Your task to perform on an android device: Search for jbl charge 4 on bestbuy, select the first entry, and add it to the cart. Image 0: 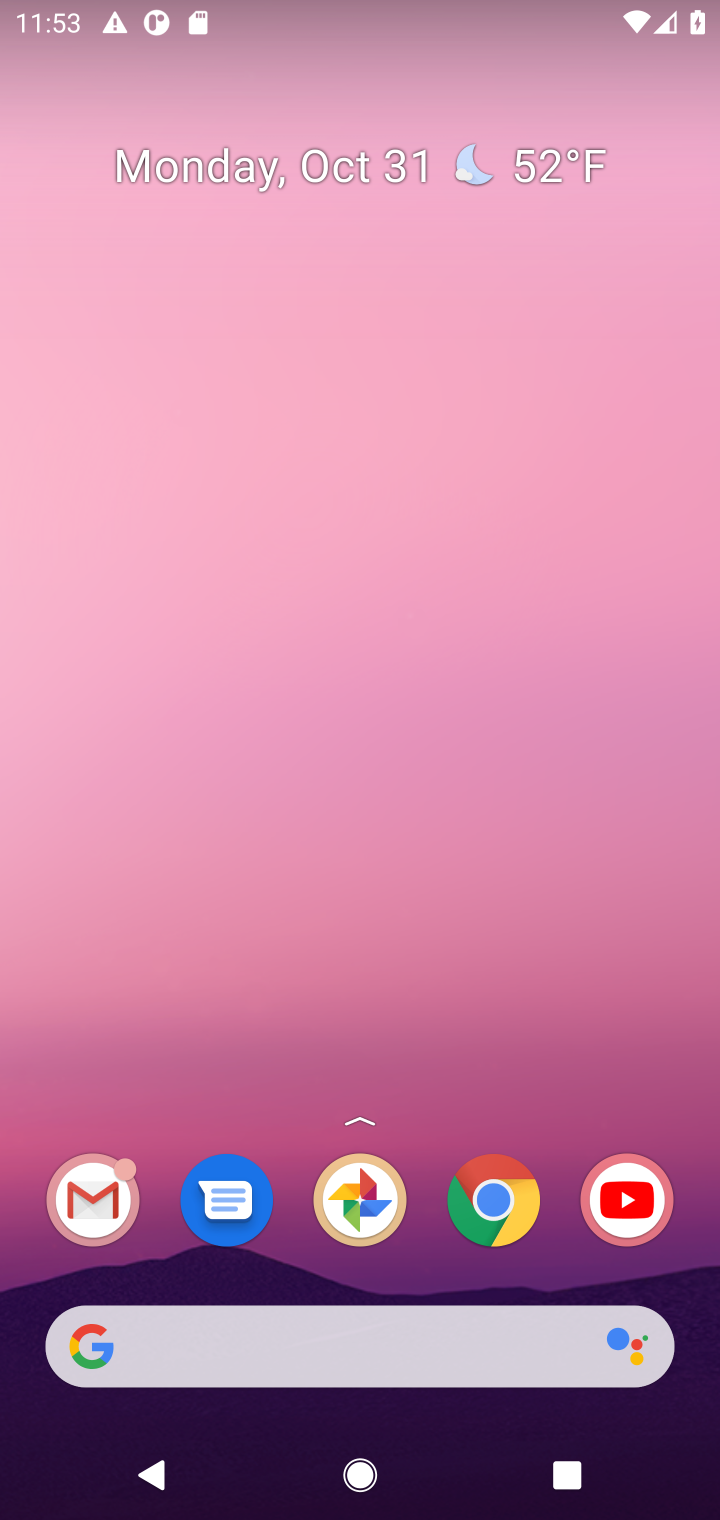
Step 0: click (506, 1199)
Your task to perform on an android device: Search for jbl charge 4 on bestbuy, select the first entry, and add it to the cart. Image 1: 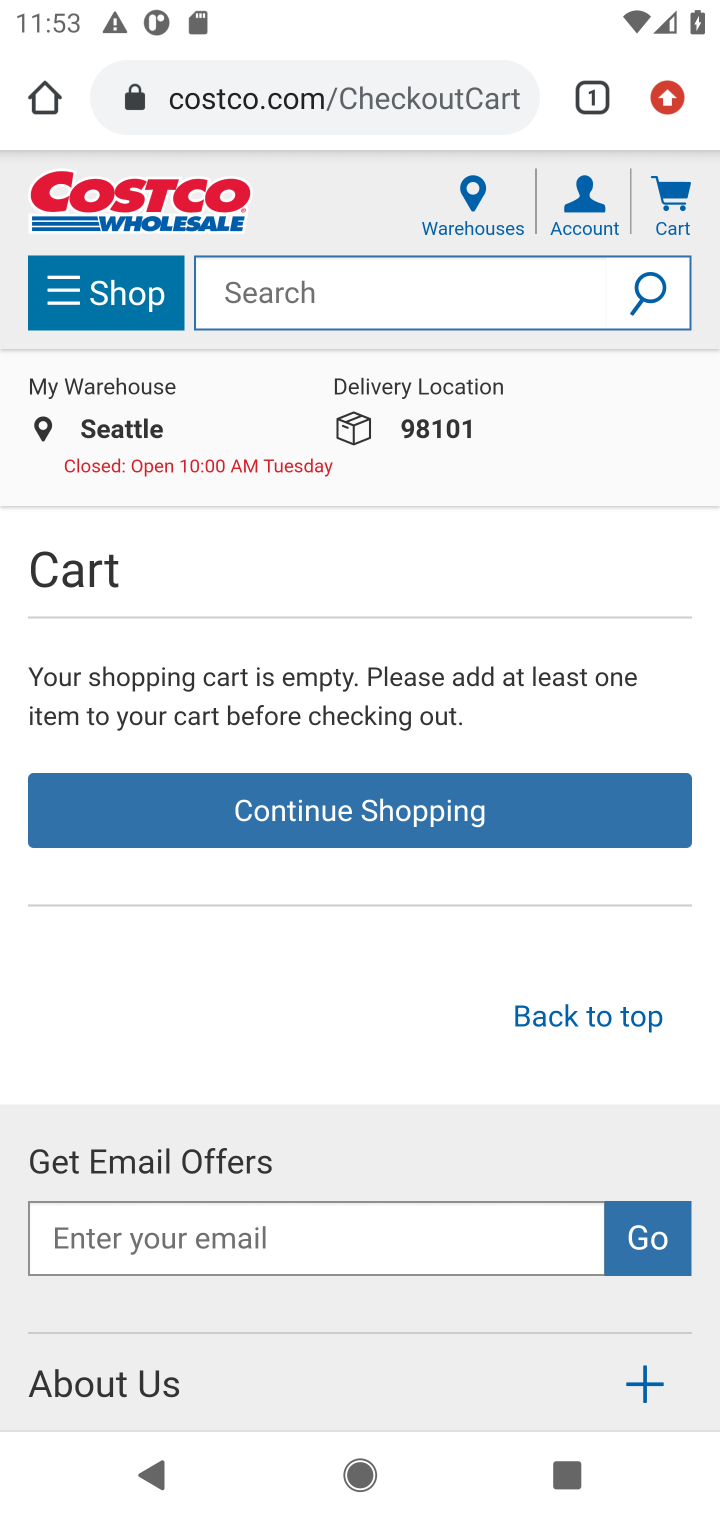
Step 1: click (375, 85)
Your task to perform on an android device: Search for jbl charge 4 on bestbuy, select the first entry, and add it to the cart. Image 2: 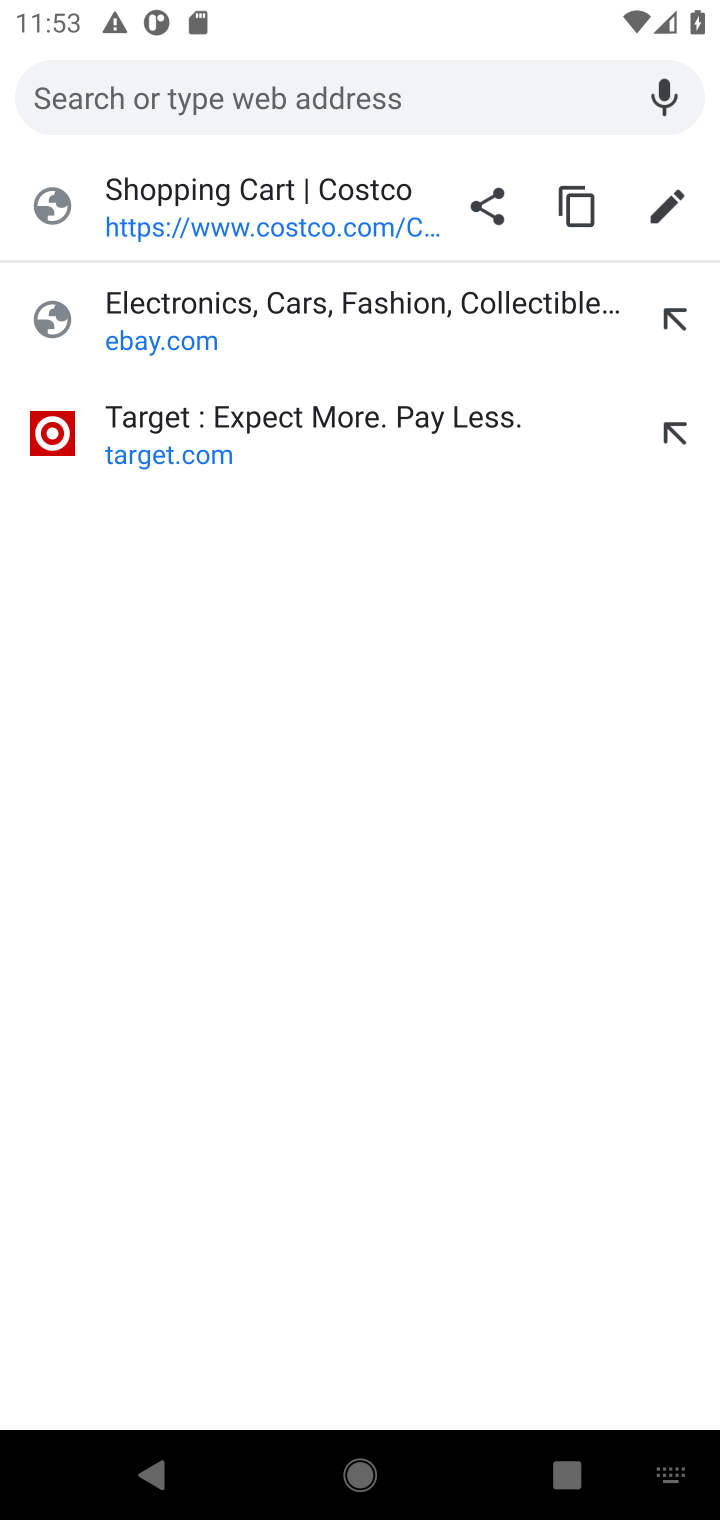
Step 2: type "bestbuy.com"
Your task to perform on an android device: Search for jbl charge 4 on bestbuy, select the first entry, and add it to the cart. Image 3: 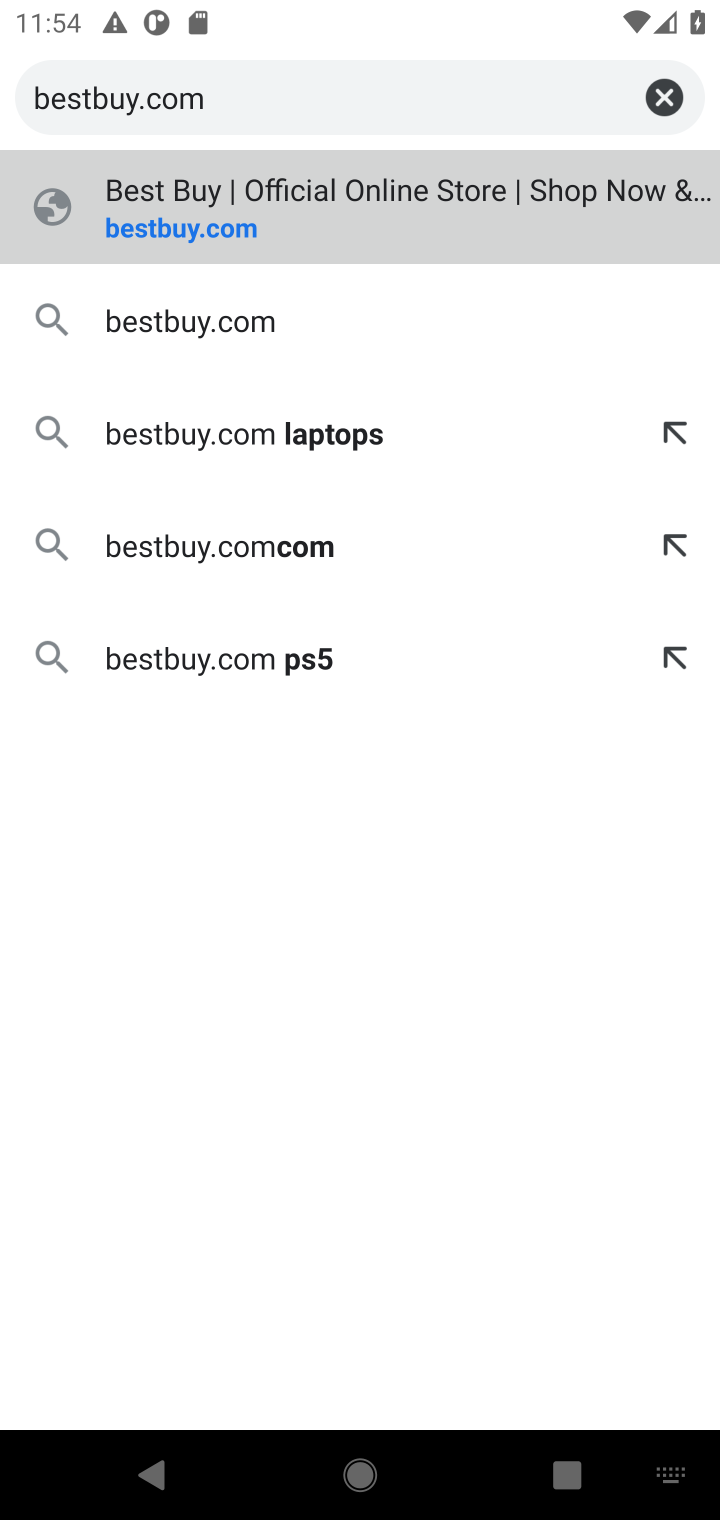
Step 3: click (202, 231)
Your task to perform on an android device: Search for jbl charge 4 on bestbuy, select the first entry, and add it to the cart. Image 4: 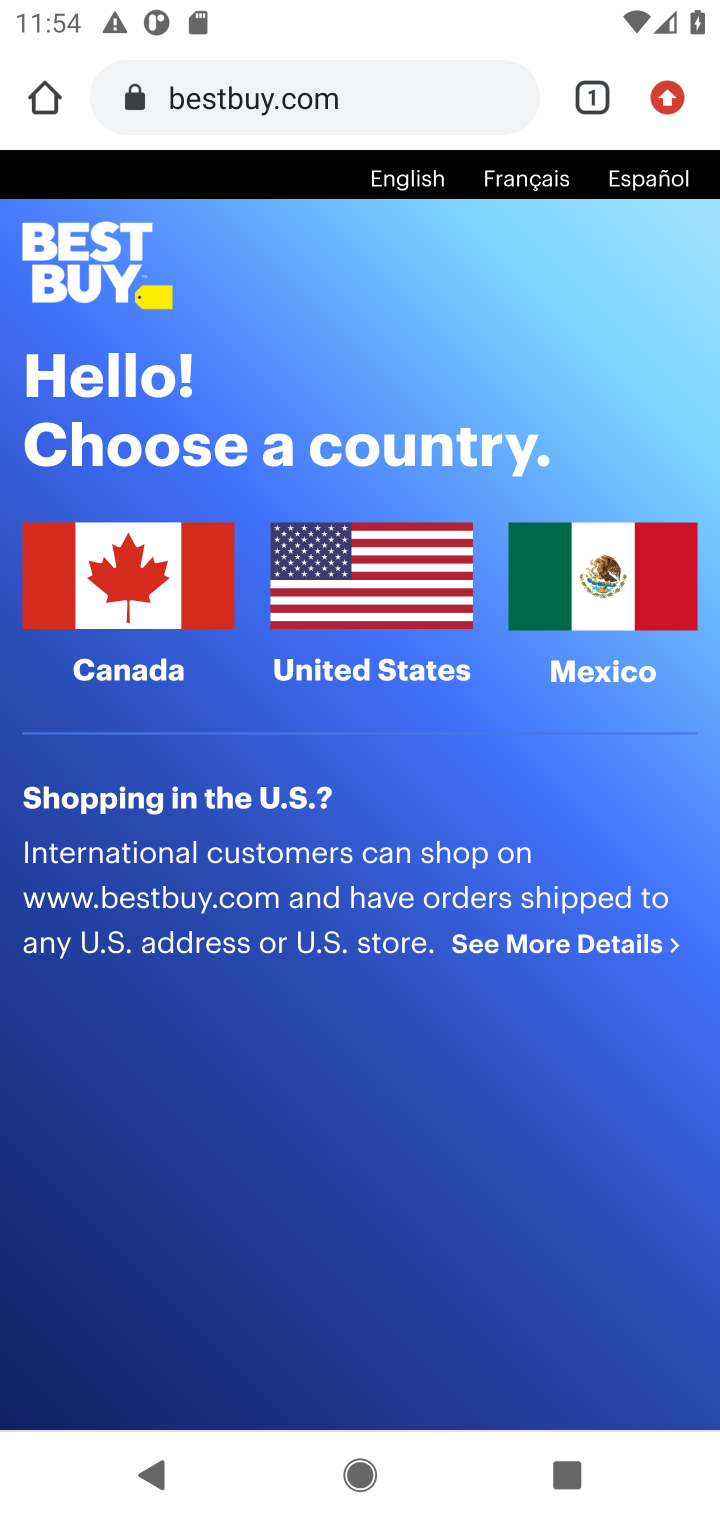
Step 4: click (374, 612)
Your task to perform on an android device: Search for jbl charge 4 on bestbuy, select the first entry, and add it to the cart. Image 5: 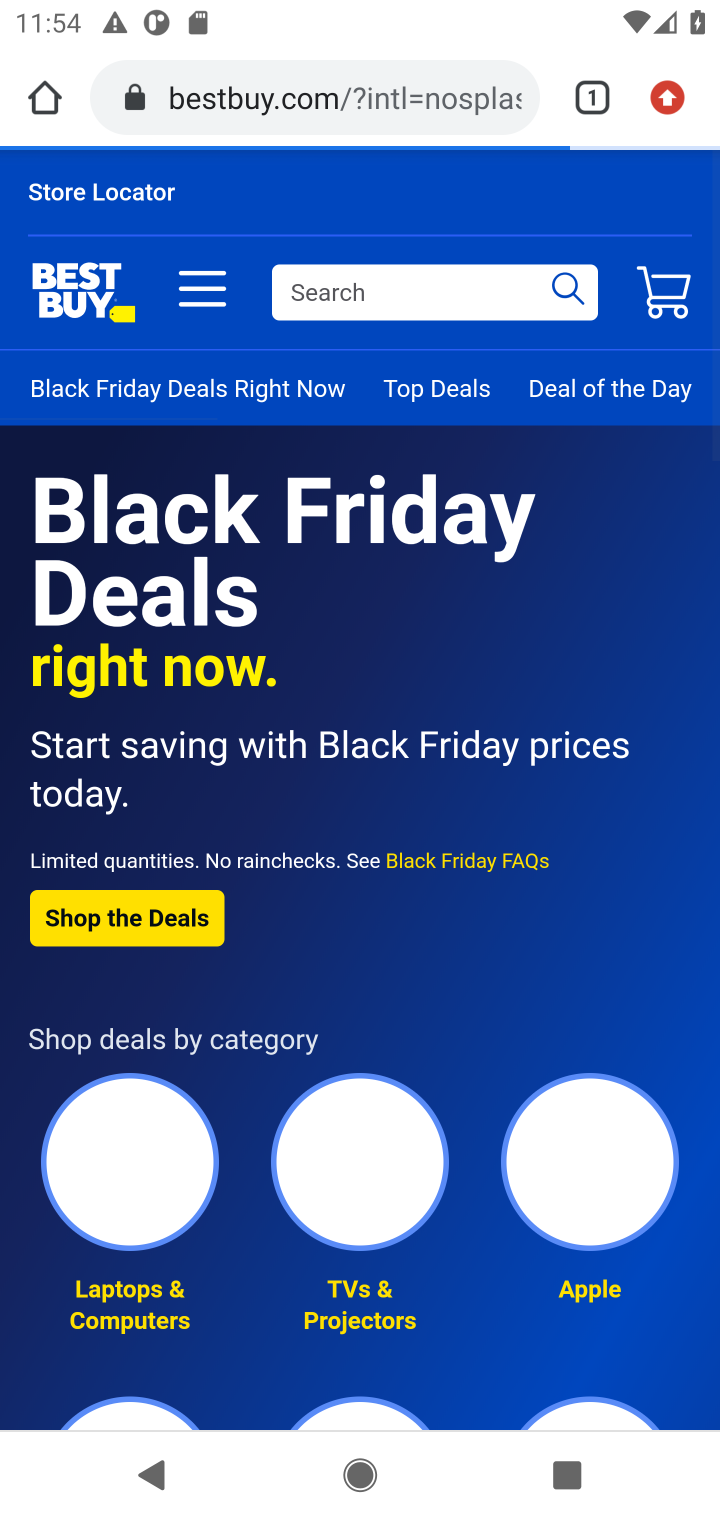
Step 5: click (329, 290)
Your task to perform on an android device: Search for jbl charge 4 on bestbuy, select the first entry, and add it to the cart. Image 6: 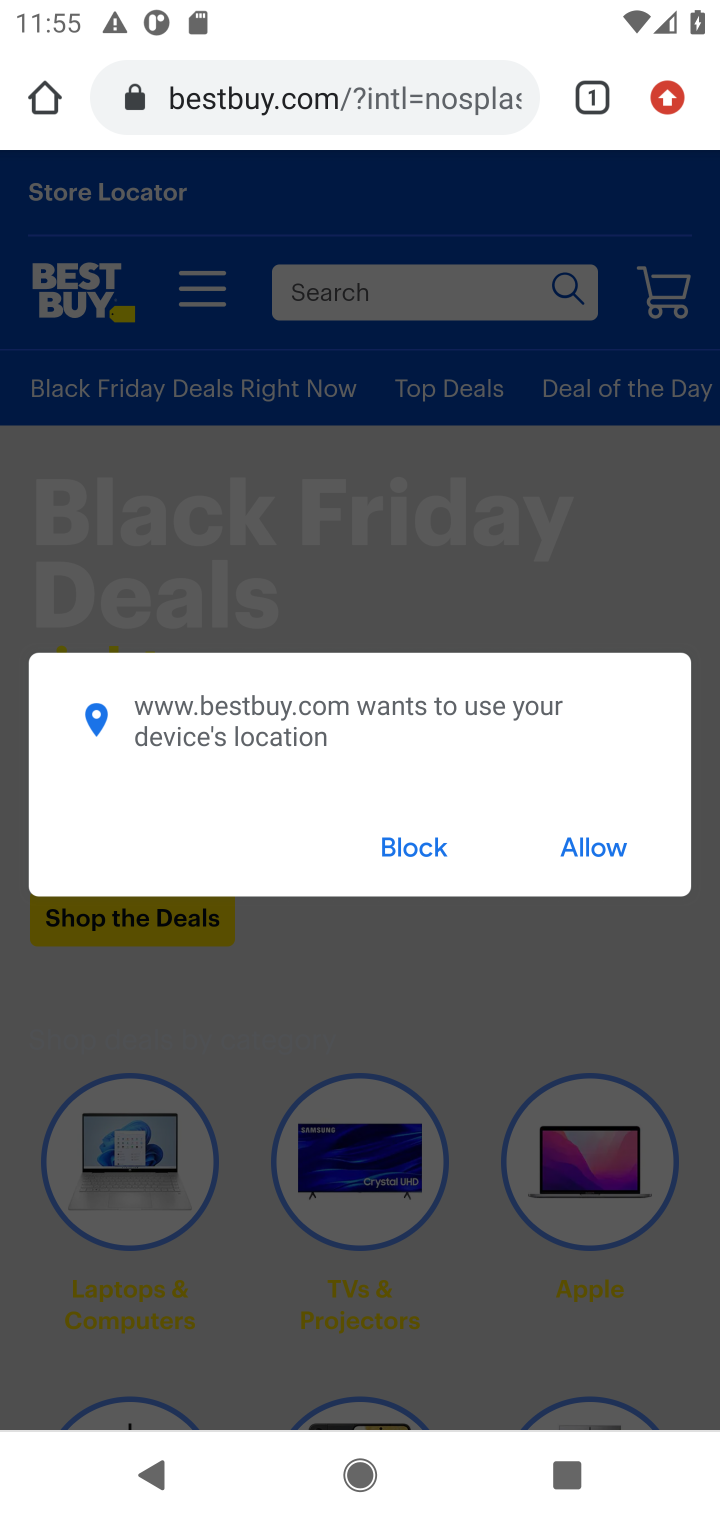
Step 6: type "jbl charge 4"
Your task to perform on an android device: Search for jbl charge 4 on bestbuy, select the first entry, and add it to the cart. Image 7: 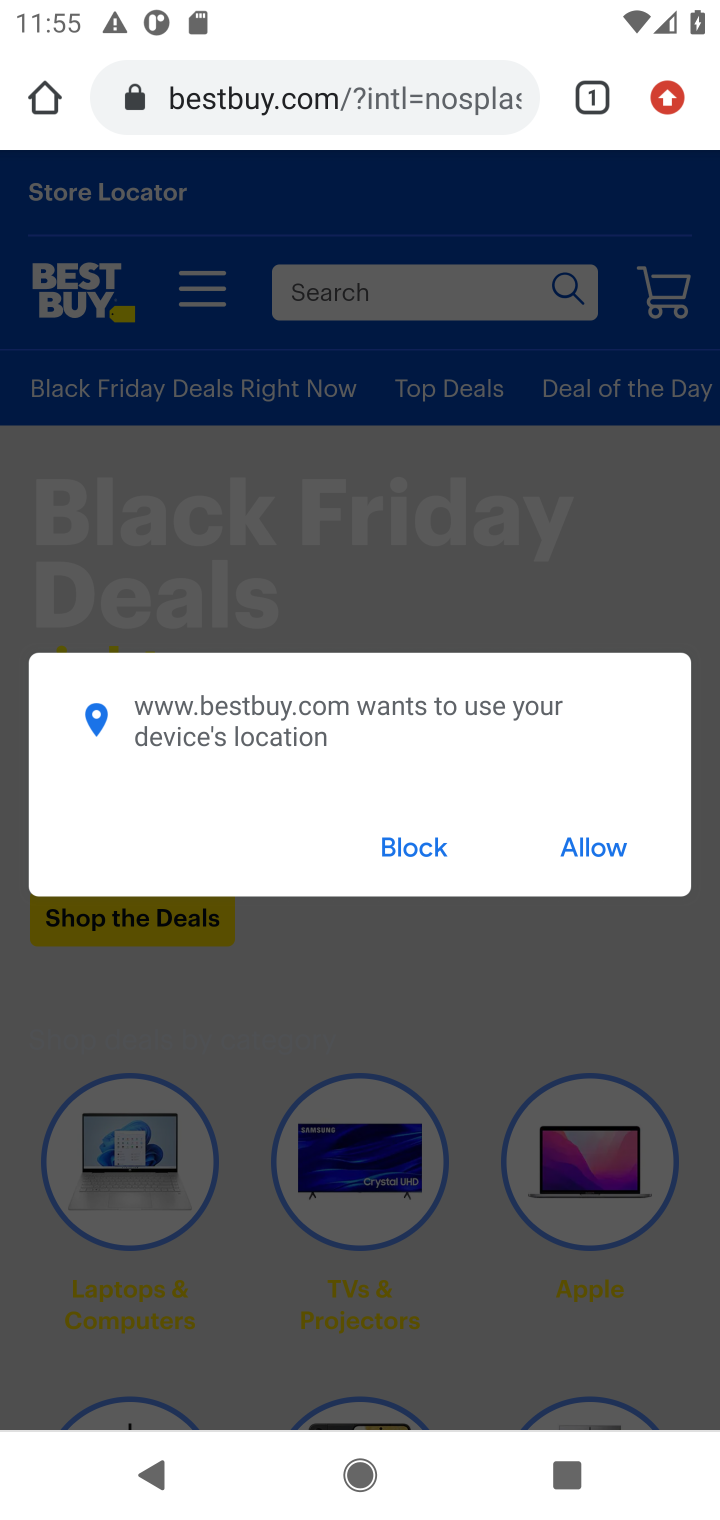
Step 7: click (436, 846)
Your task to perform on an android device: Search for jbl charge 4 on bestbuy, select the first entry, and add it to the cart. Image 8: 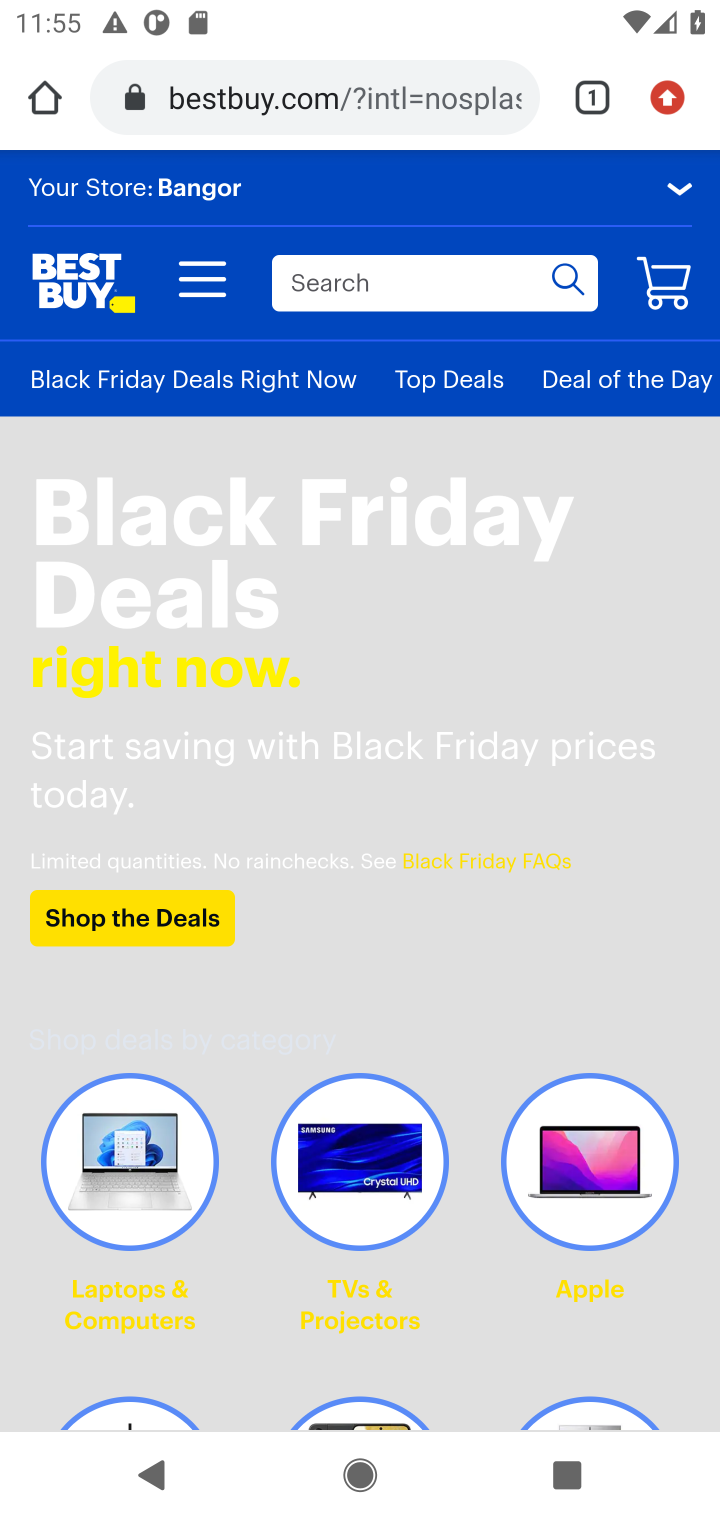
Step 8: click (344, 279)
Your task to perform on an android device: Search for jbl charge 4 on bestbuy, select the first entry, and add it to the cart. Image 9: 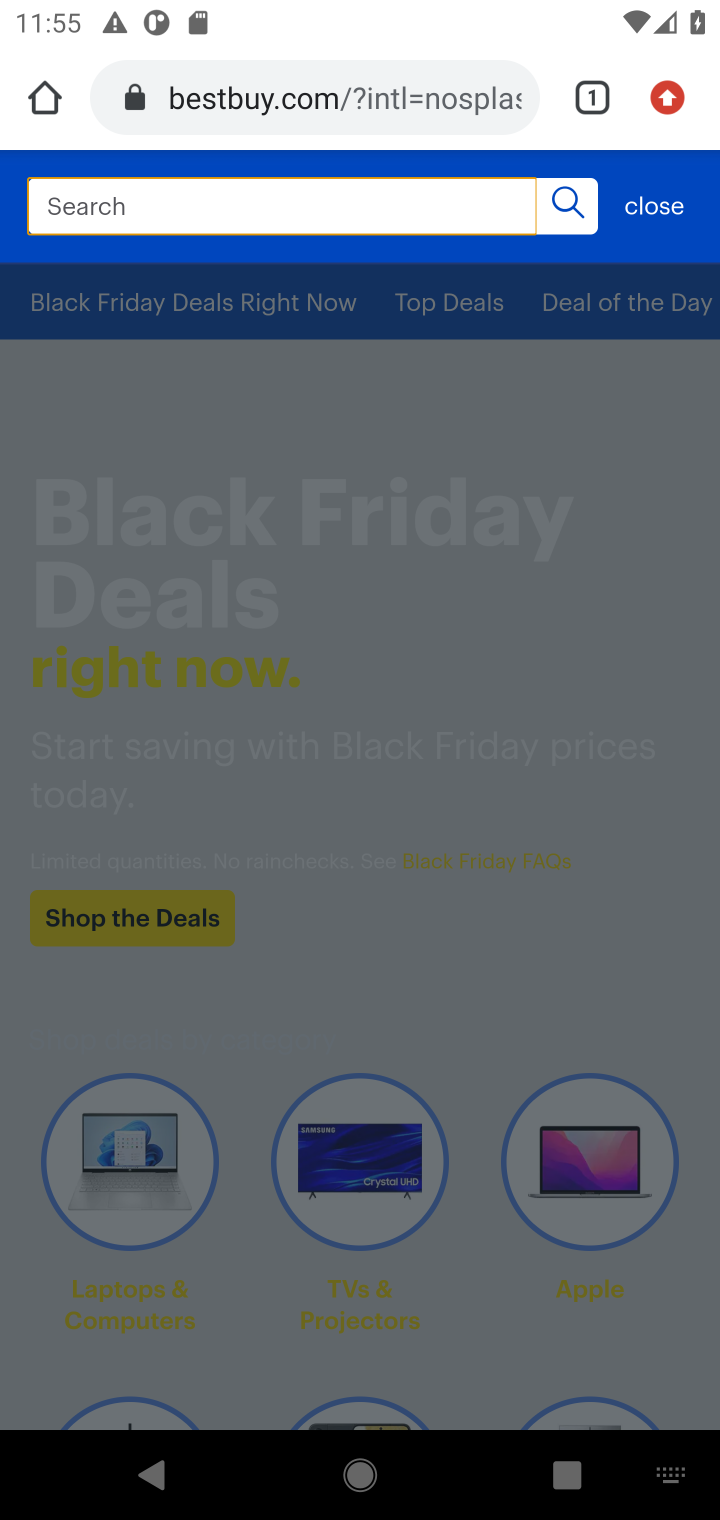
Step 9: type "jbl charge 4"
Your task to perform on an android device: Search for jbl charge 4 on bestbuy, select the first entry, and add it to the cart. Image 10: 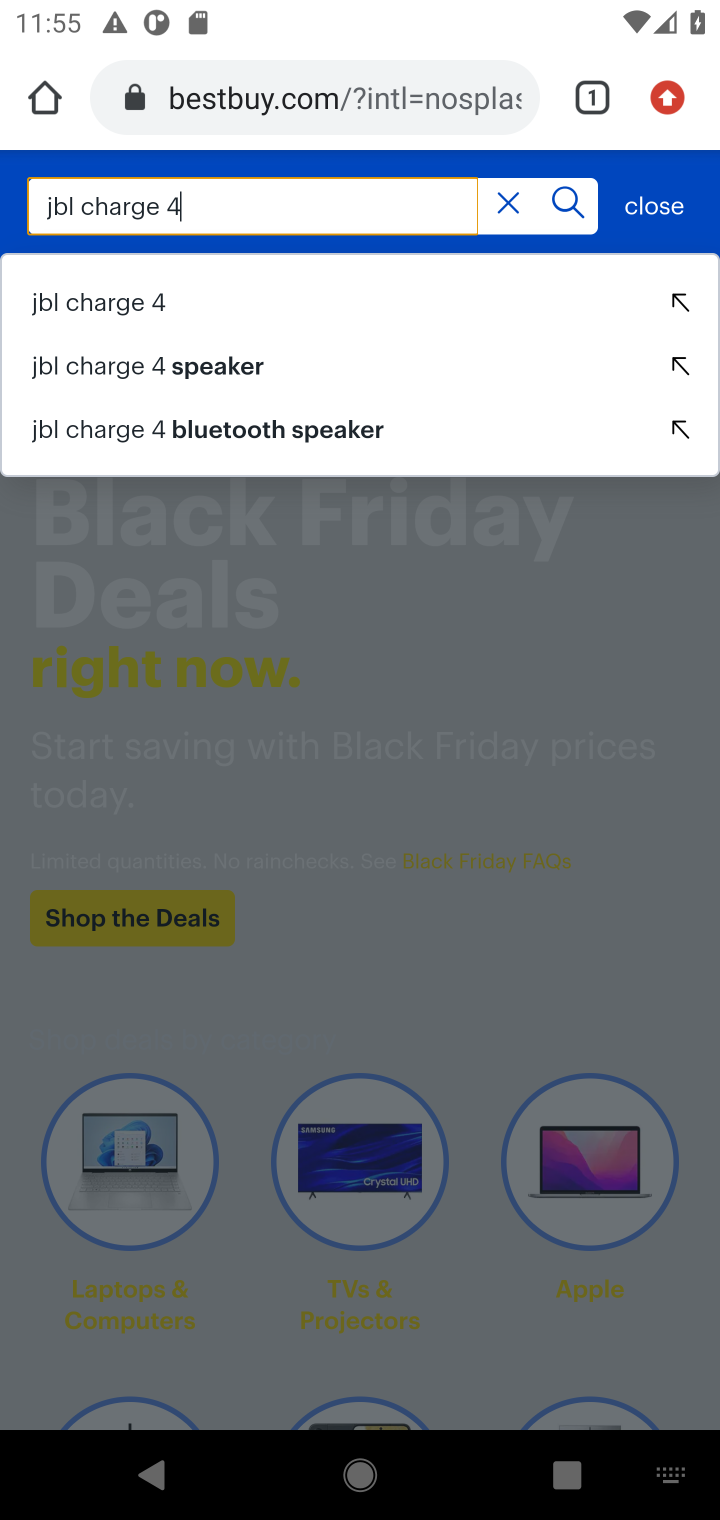
Step 10: click (109, 309)
Your task to perform on an android device: Search for jbl charge 4 on bestbuy, select the first entry, and add it to the cart. Image 11: 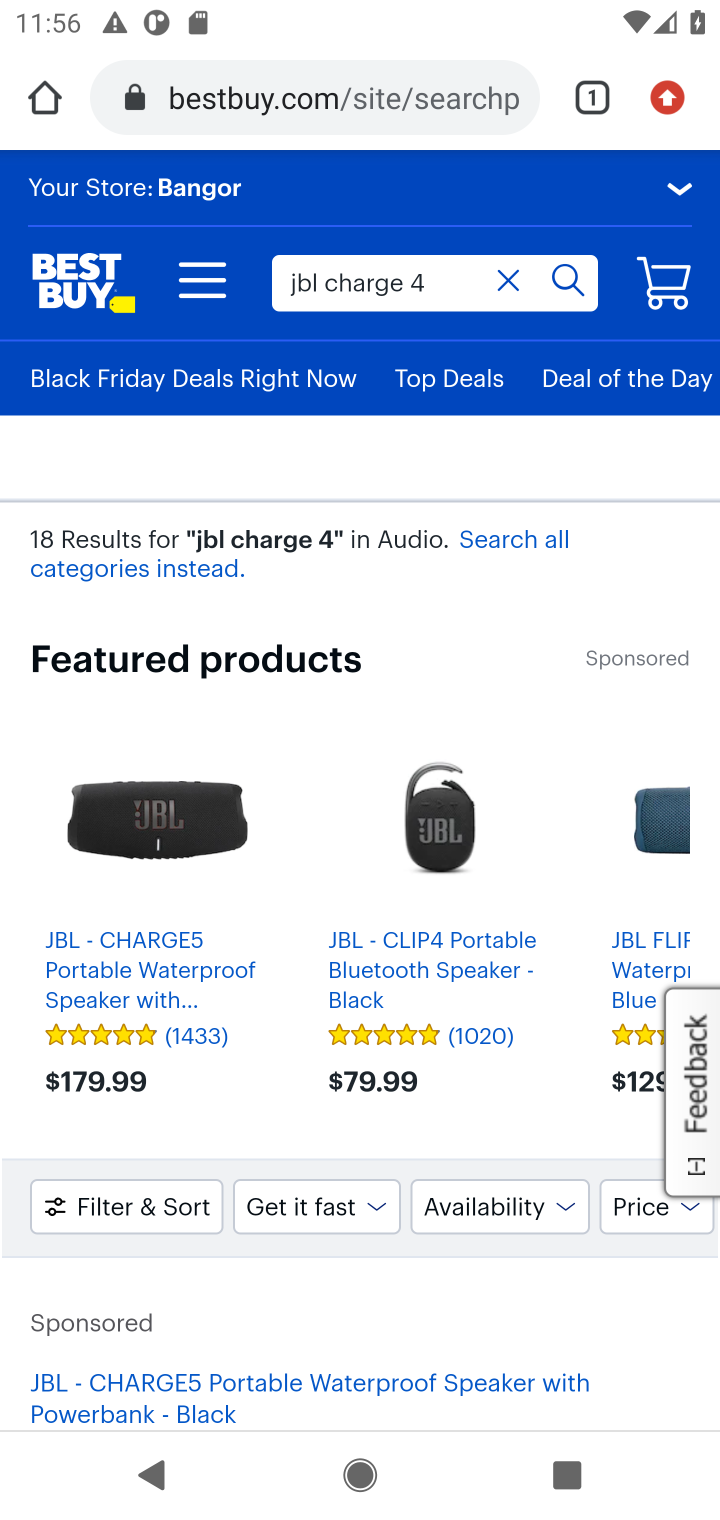
Step 11: task complete